Your task to perform on an android device: check battery use Image 0: 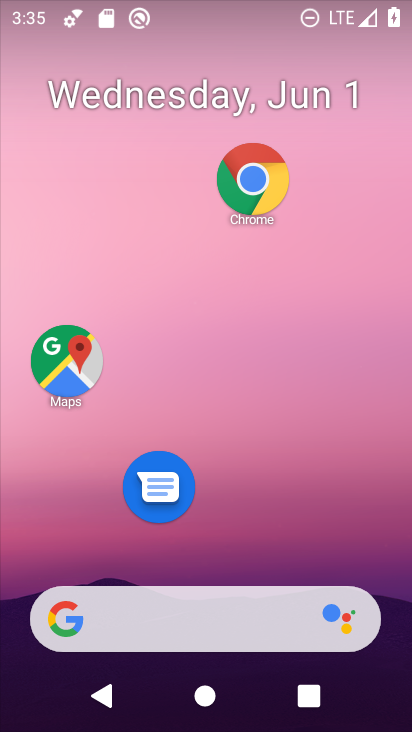
Step 0: click (305, 544)
Your task to perform on an android device: check battery use Image 1: 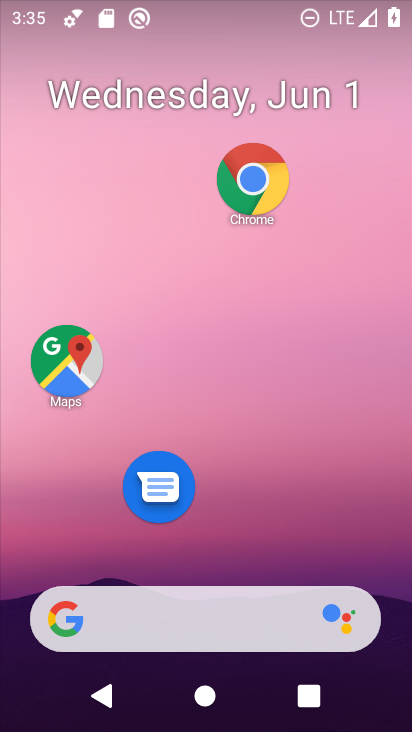
Step 1: drag from (292, 425) to (265, 234)
Your task to perform on an android device: check battery use Image 2: 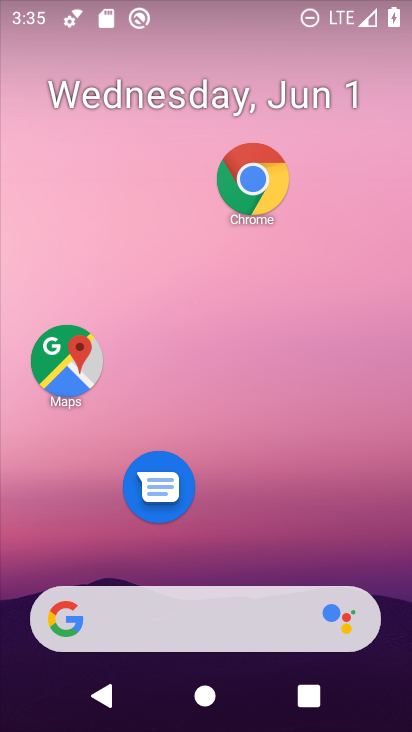
Step 2: drag from (217, 543) to (193, 96)
Your task to perform on an android device: check battery use Image 3: 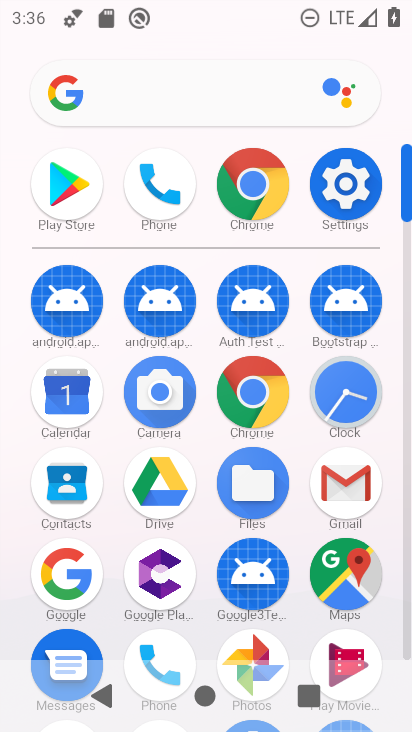
Step 3: click (357, 175)
Your task to perform on an android device: check battery use Image 4: 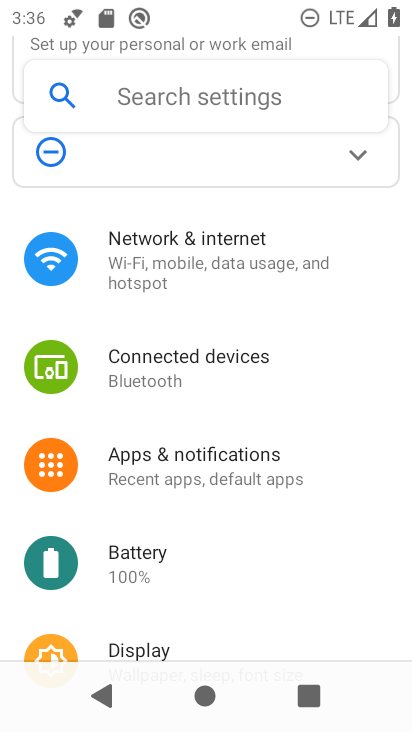
Step 4: click (201, 555)
Your task to perform on an android device: check battery use Image 5: 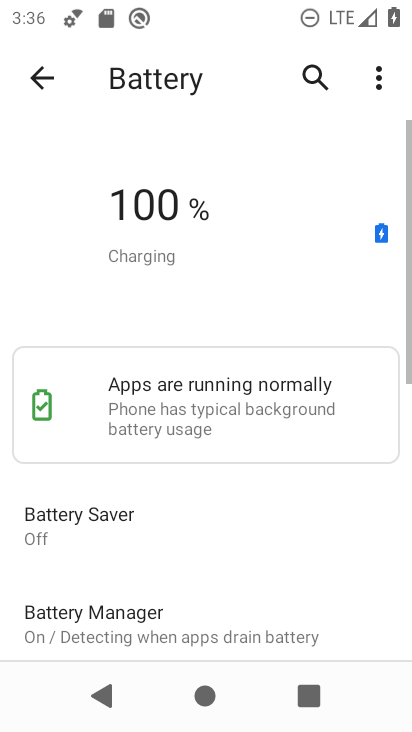
Step 5: task complete